Your task to perform on an android device: change text size in settings app Image 0: 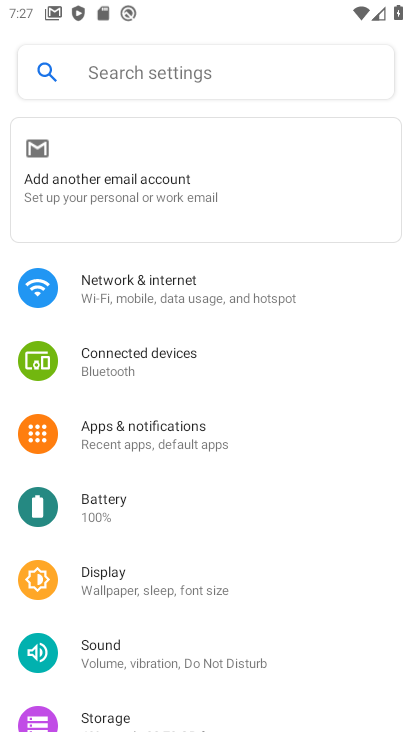
Step 0: press home button
Your task to perform on an android device: change text size in settings app Image 1: 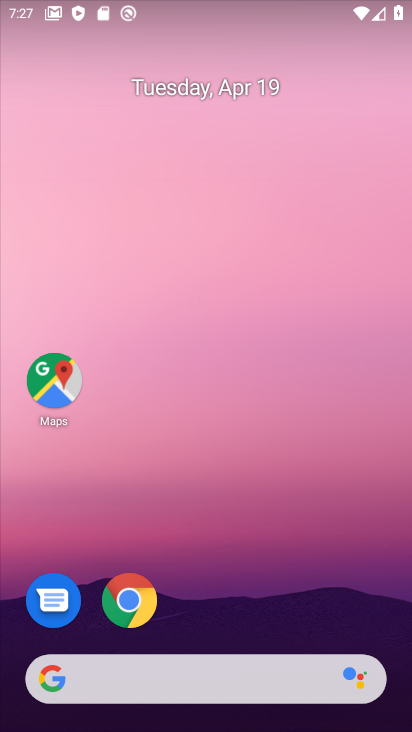
Step 1: drag from (377, 630) to (188, 117)
Your task to perform on an android device: change text size in settings app Image 2: 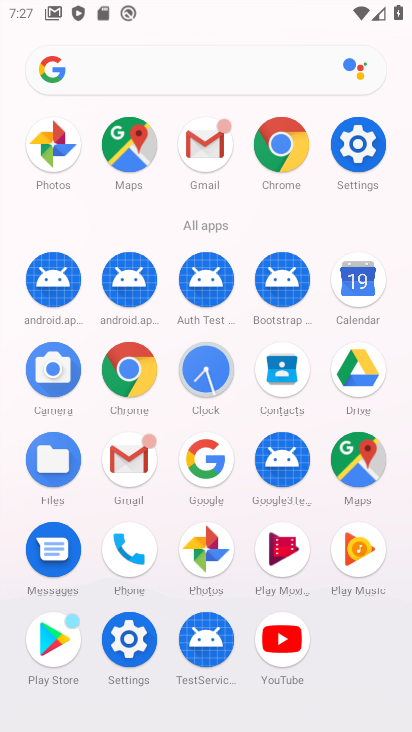
Step 2: click (358, 123)
Your task to perform on an android device: change text size in settings app Image 3: 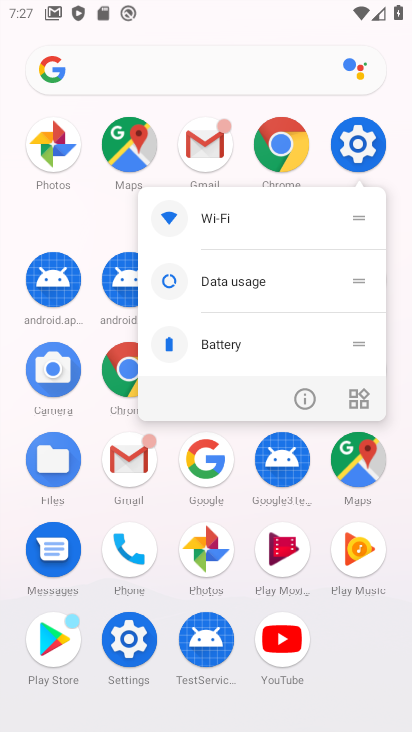
Step 3: click (356, 129)
Your task to perform on an android device: change text size in settings app Image 4: 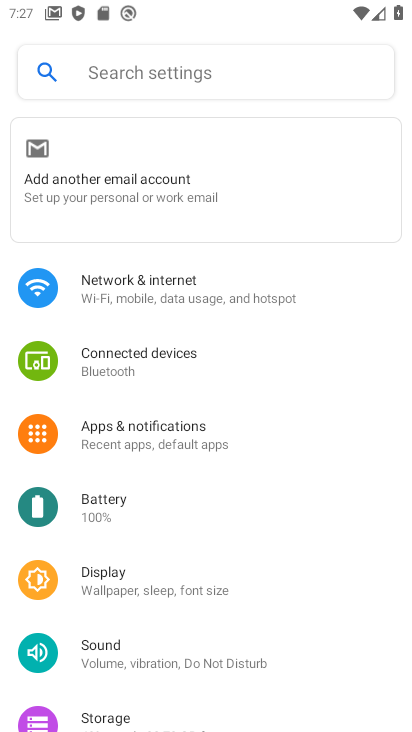
Step 4: click (224, 573)
Your task to perform on an android device: change text size in settings app Image 5: 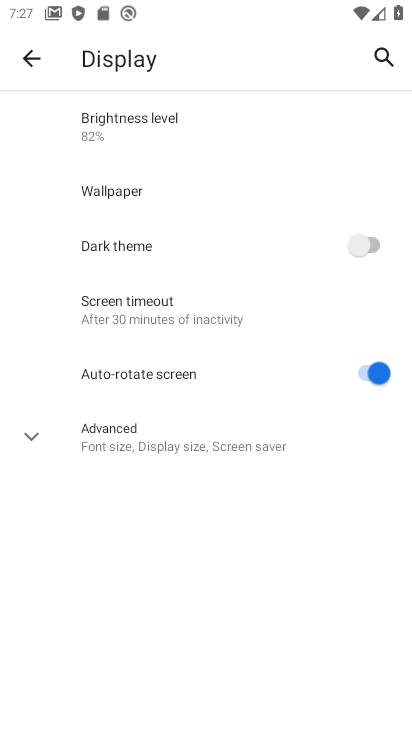
Step 5: click (169, 441)
Your task to perform on an android device: change text size in settings app Image 6: 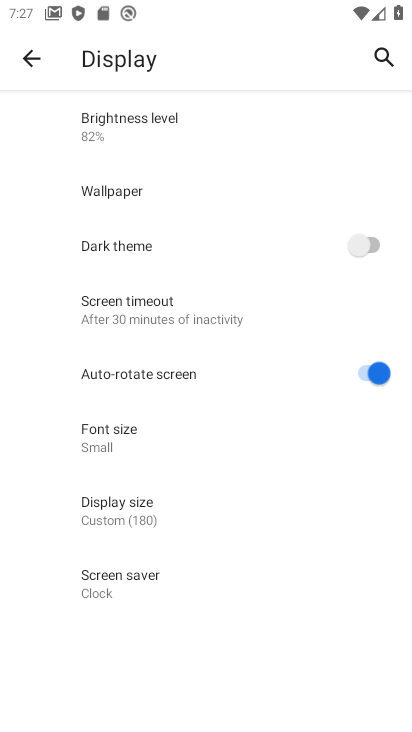
Step 6: click (169, 442)
Your task to perform on an android device: change text size in settings app Image 7: 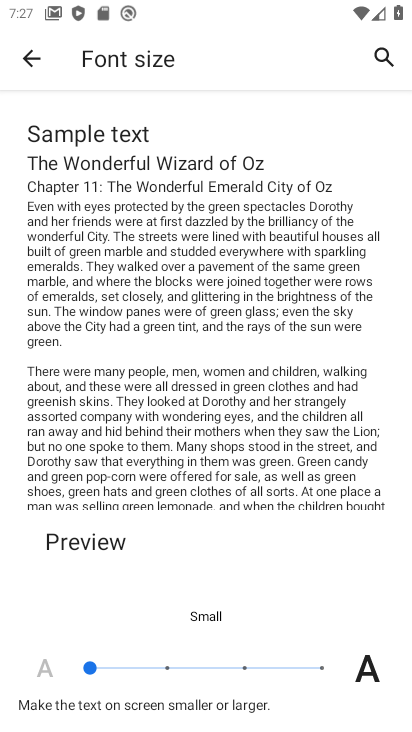
Step 7: click (165, 667)
Your task to perform on an android device: change text size in settings app Image 8: 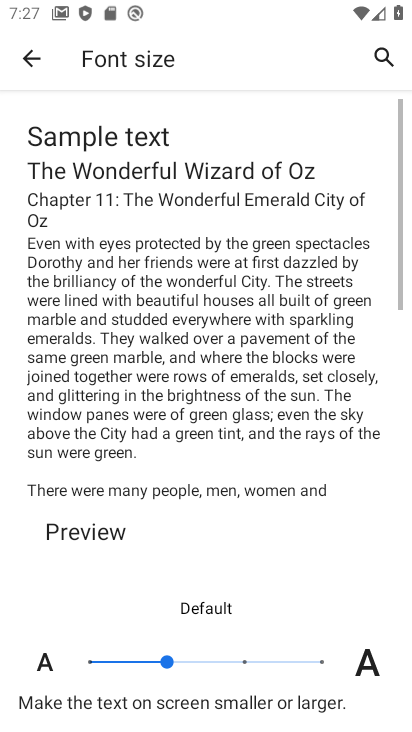
Step 8: task complete